Your task to perform on an android device: Go to notification settings Image 0: 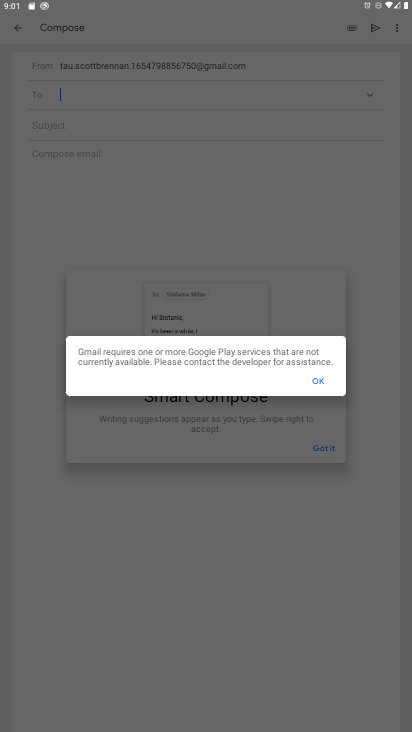
Step 0: press home button
Your task to perform on an android device: Go to notification settings Image 1: 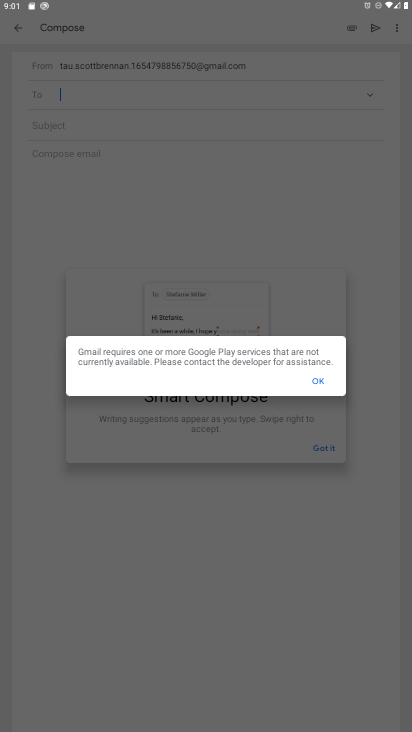
Step 1: drag from (365, 694) to (218, 38)
Your task to perform on an android device: Go to notification settings Image 2: 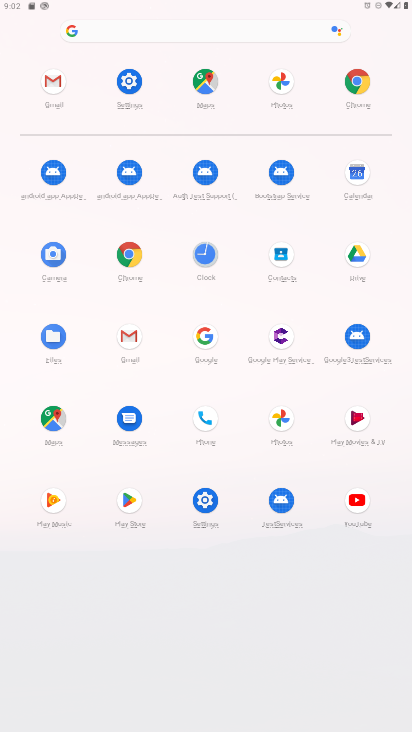
Step 2: click (201, 508)
Your task to perform on an android device: Go to notification settings Image 3: 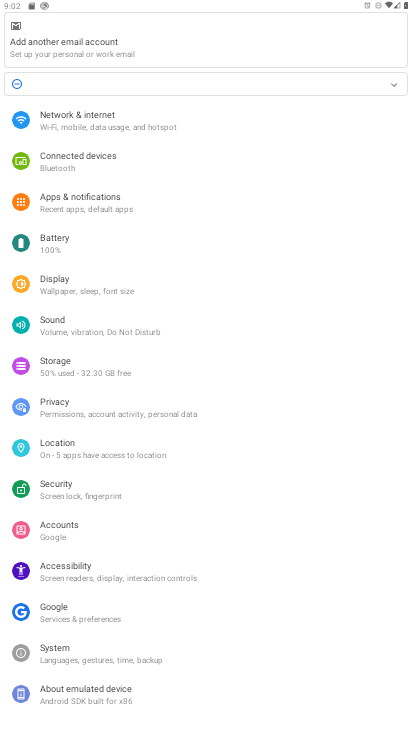
Step 3: click (98, 212)
Your task to perform on an android device: Go to notification settings Image 4: 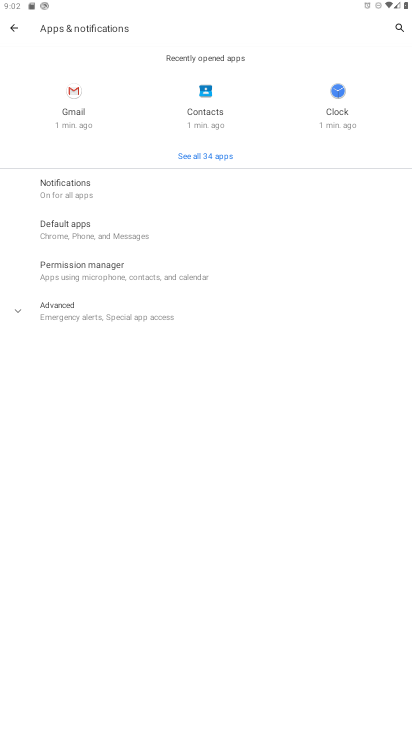
Step 4: click (103, 207)
Your task to perform on an android device: Go to notification settings Image 5: 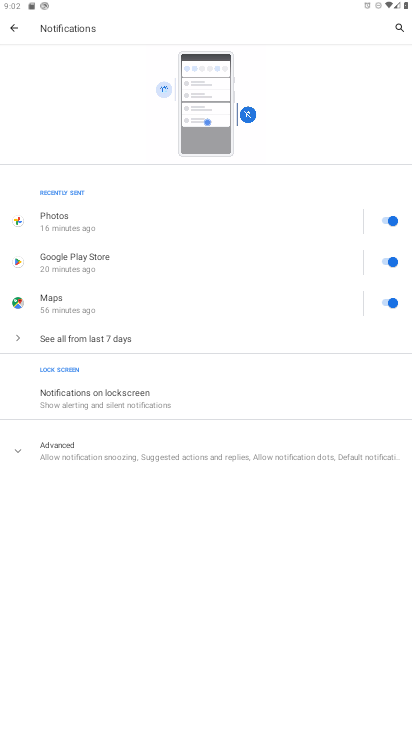
Step 5: task complete